Your task to perform on an android device: What's the weather today? Image 0: 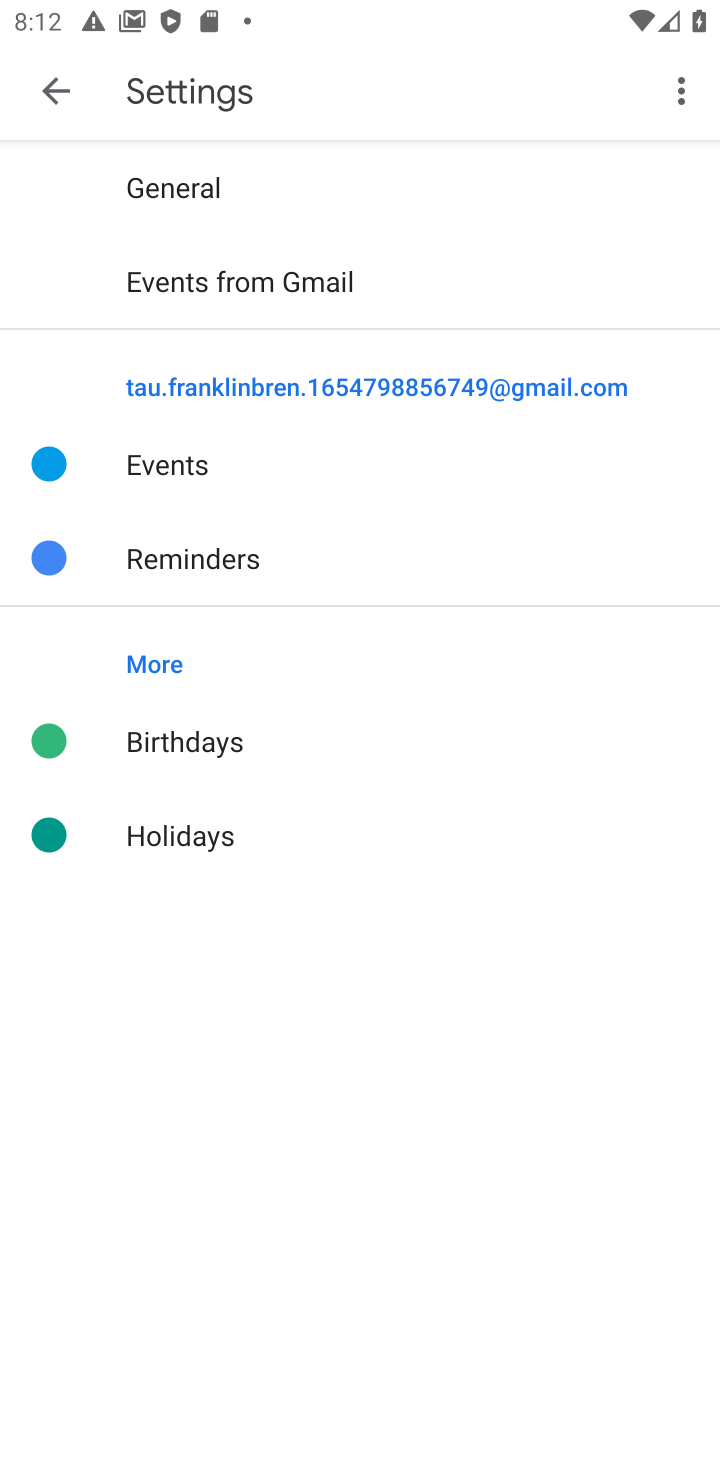
Step 0: press home button
Your task to perform on an android device: What's the weather today? Image 1: 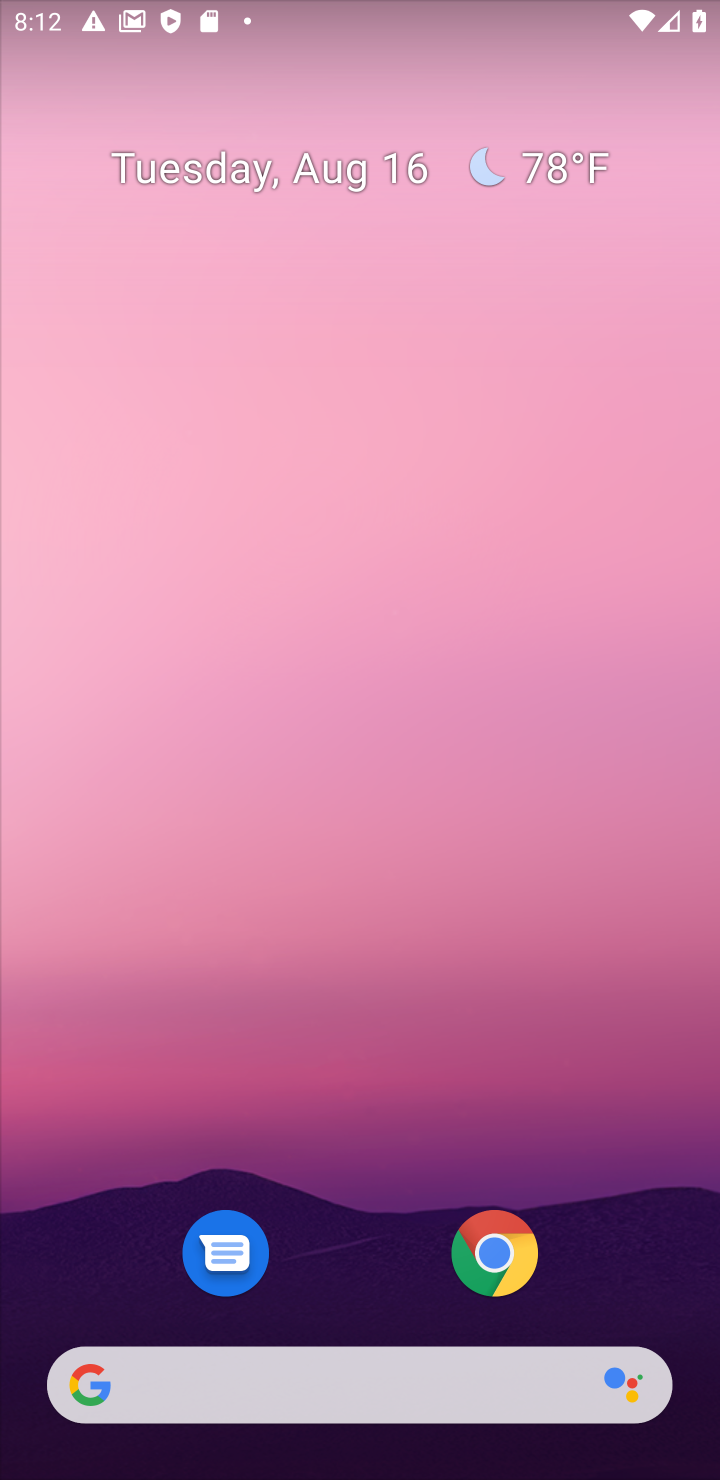
Step 1: click (262, 1383)
Your task to perform on an android device: What's the weather today? Image 2: 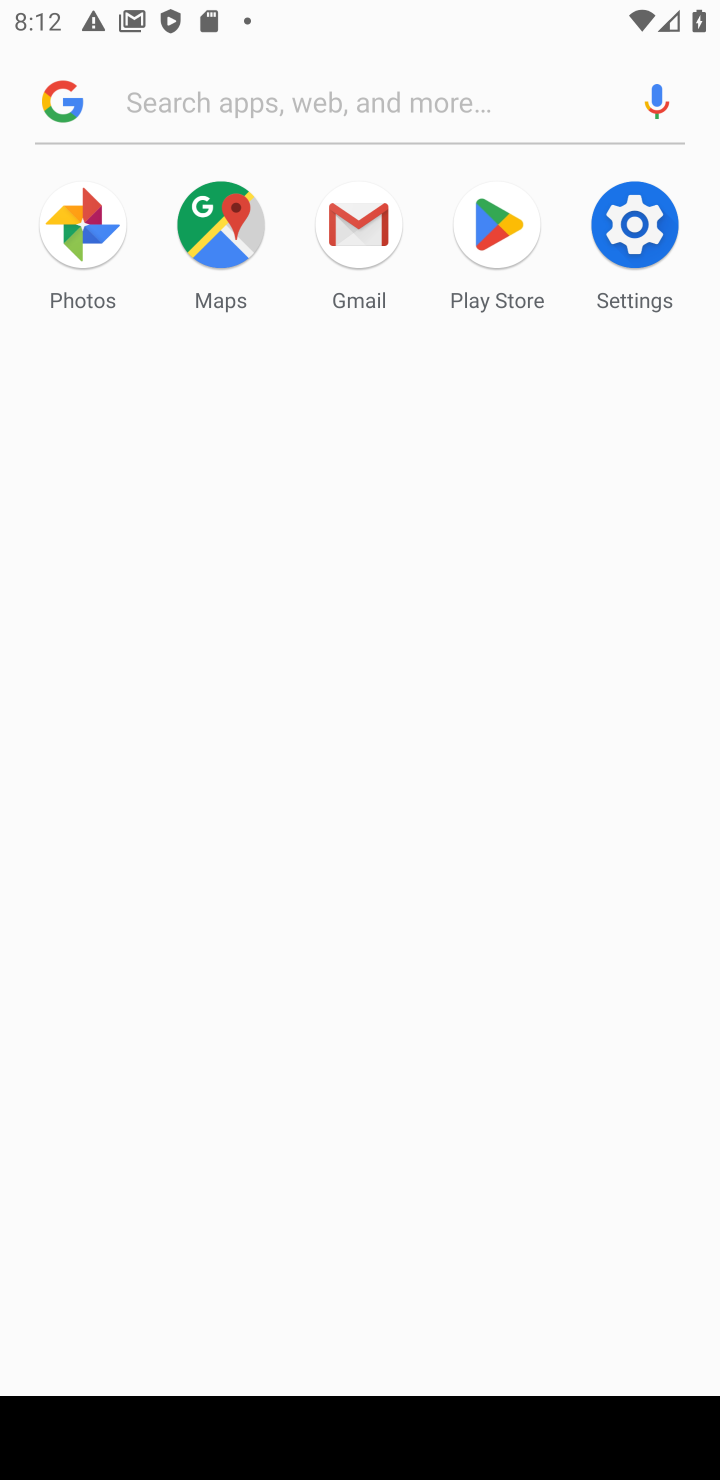
Step 2: click (188, 101)
Your task to perform on an android device: What's the weather today? Image 3: 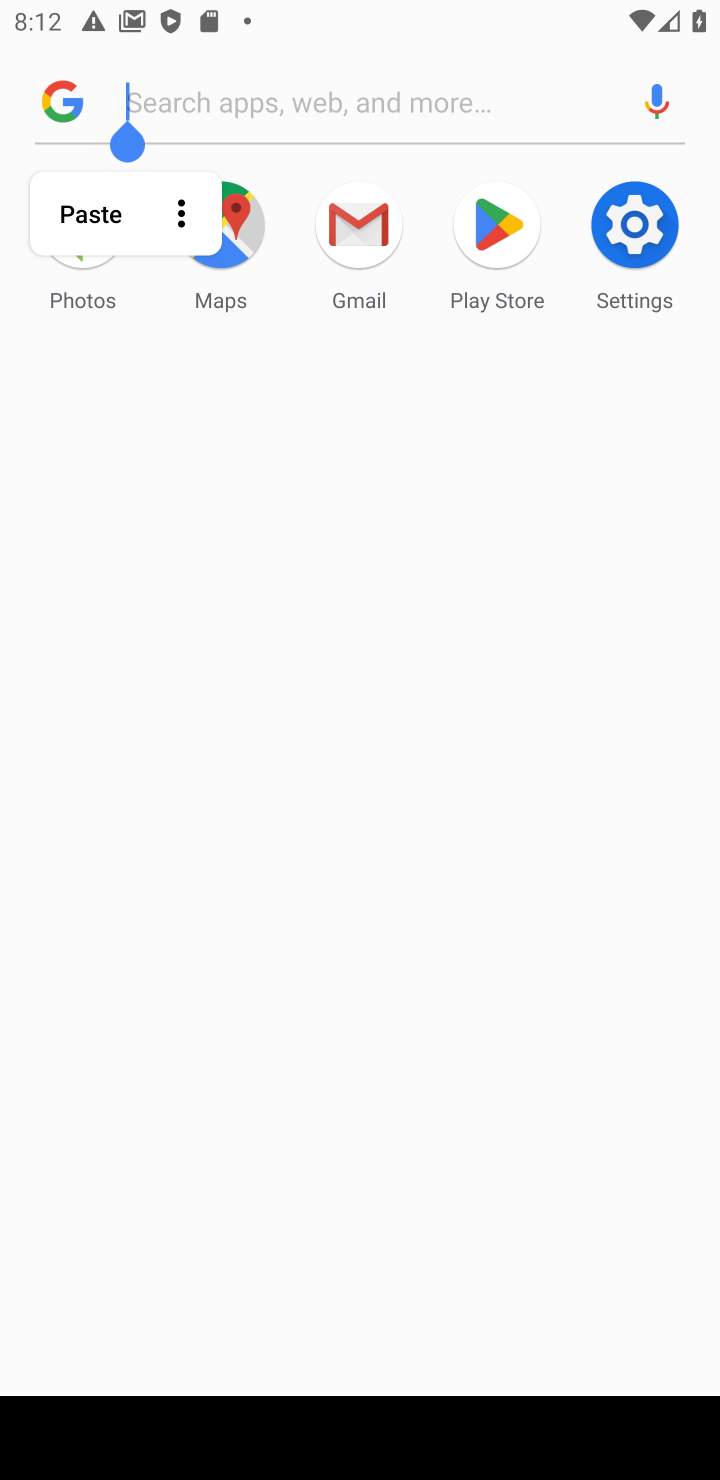
Step 3: click (182, 63)
Your task to perform on an android device: What's the weather today? Image 4: 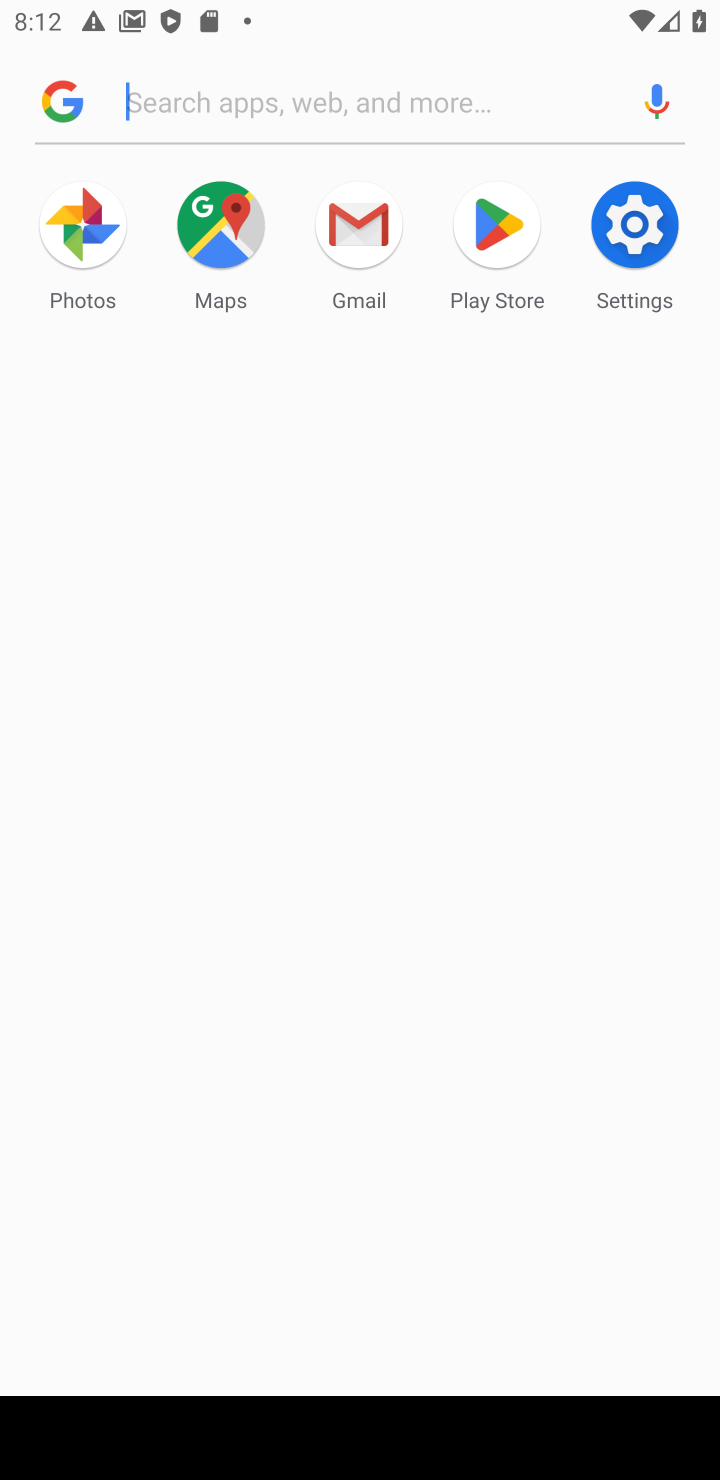
Step 4: type " weather today"
Your task to perform on an android device: What's the weather today? Image 5: 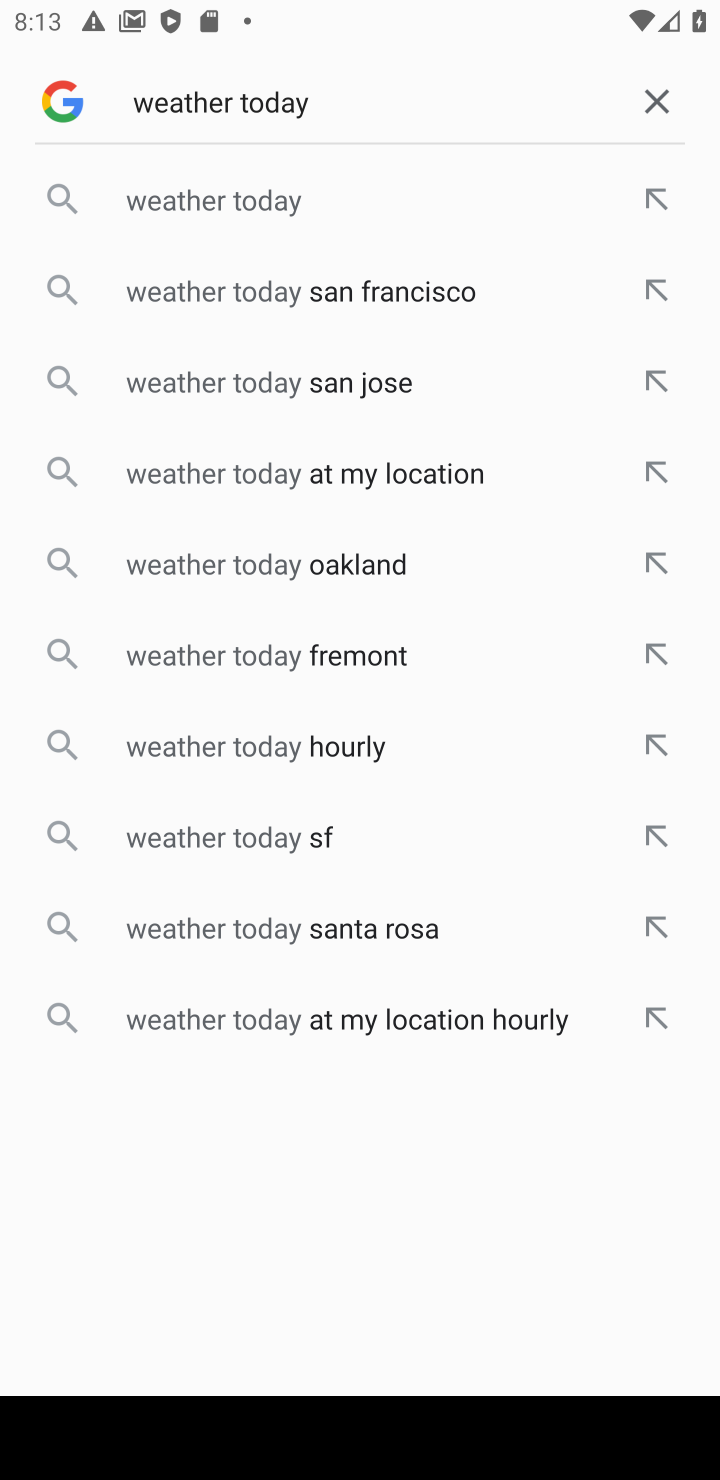
Step 5: click (245, 206)
Your task to perform on an android device: What's the weather today? Image 6: 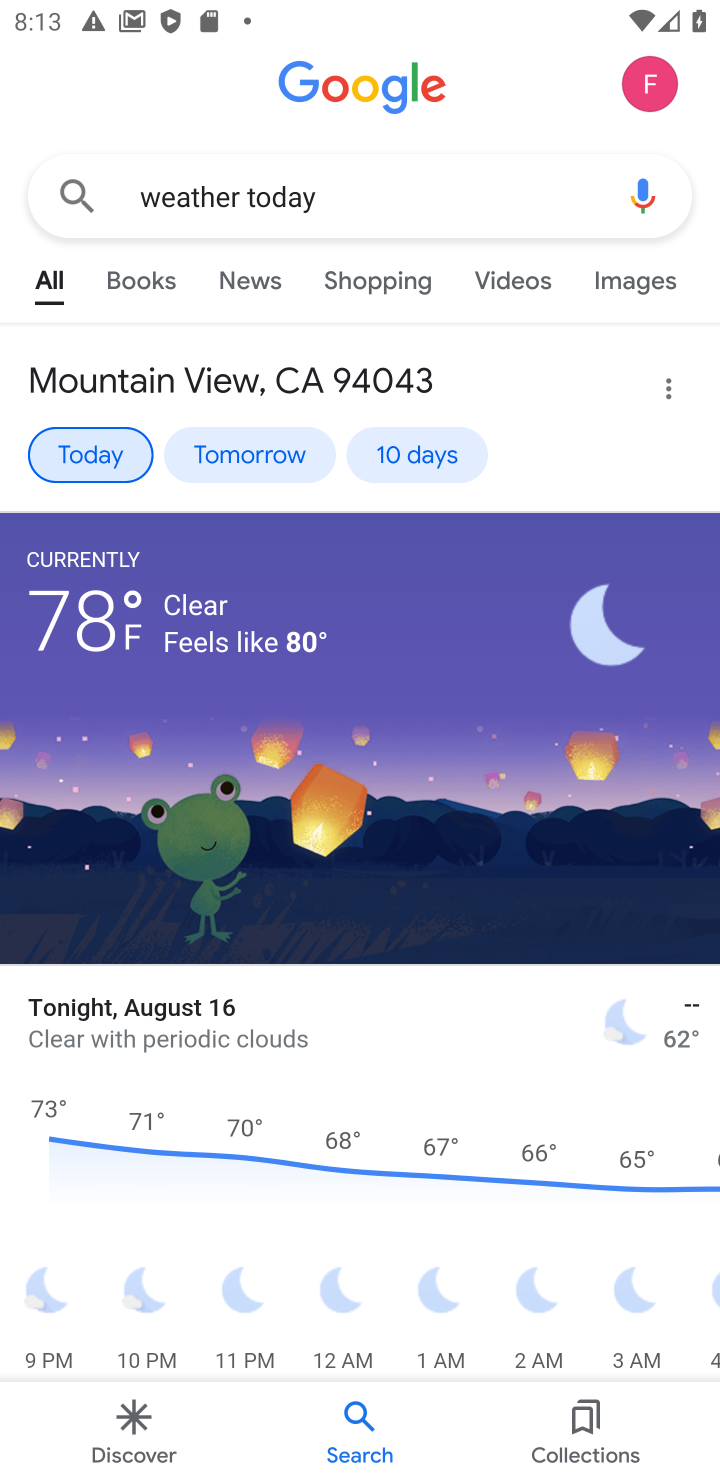
Step 6: task complete